Your task to perform on an android device: Open battery settings Image 0: 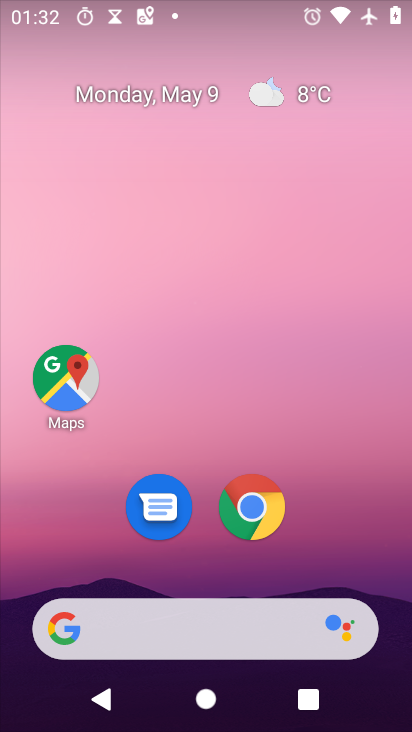
Step 0: drag from (232, 727) to (222, 87)
Your task to perform on an android device: Open battery settings Image 1: 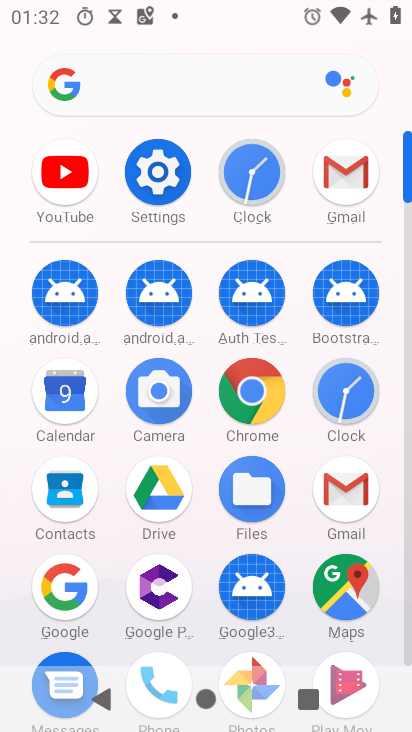
Step 1: click (148, 165)
Your task to perform on an android device: Open battery settings Image 2: 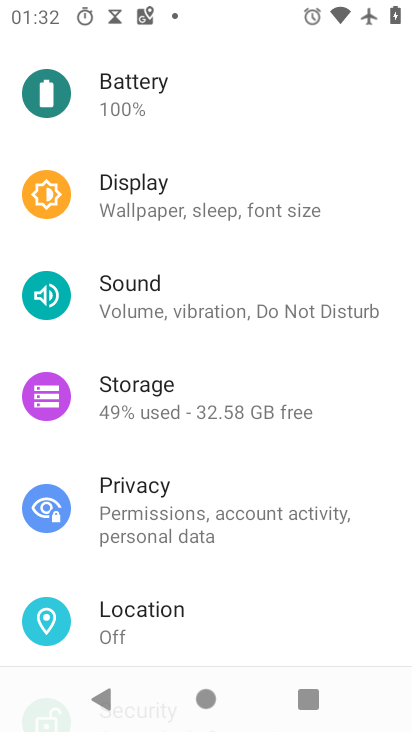
Step 2: click (130, 93)
Your task to perform on an android device: Open battery settings Image 3: 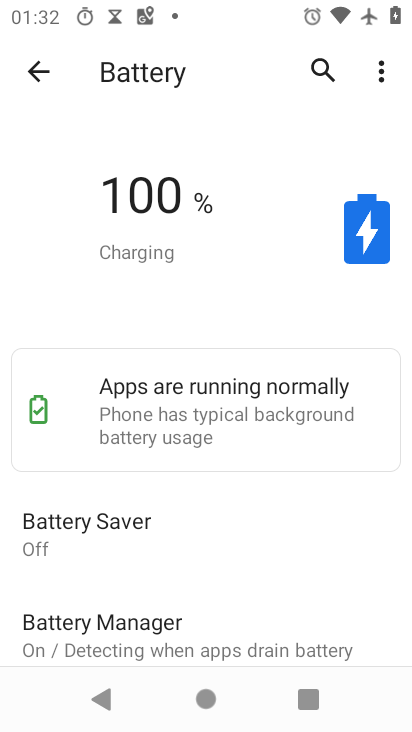
Step 3: task complete